Your task to perform on an android device: Turn off the flashlight Image 0: 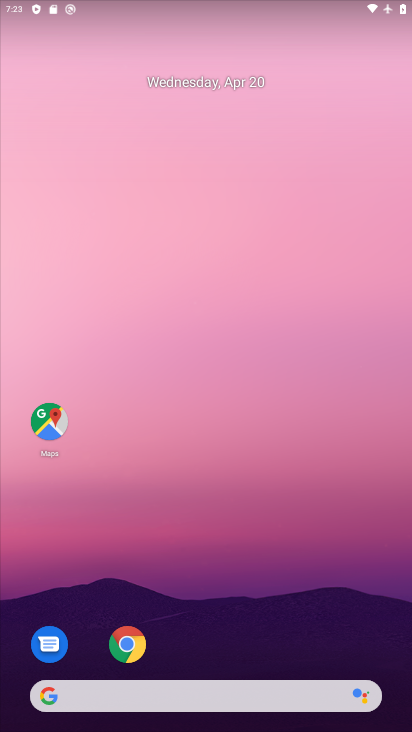
Step 0: drag from (300, 625) to (267, 58)
Your task to perform on an android device: Turn off the flashlight Image 1: 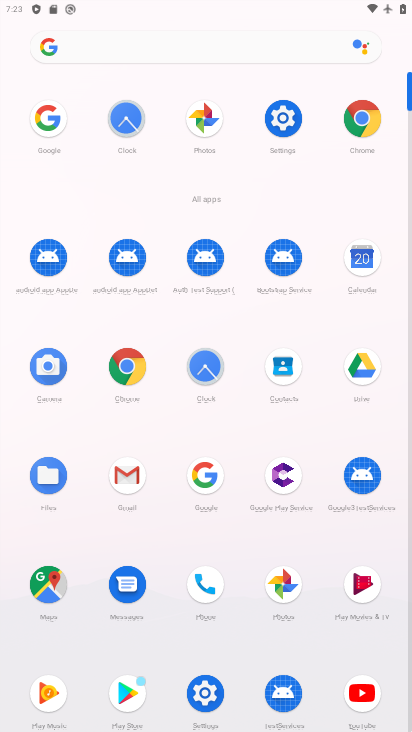
Step 1: click (273, 118)
Your task to perform on an android device: Turn off the flashlight Image 2: 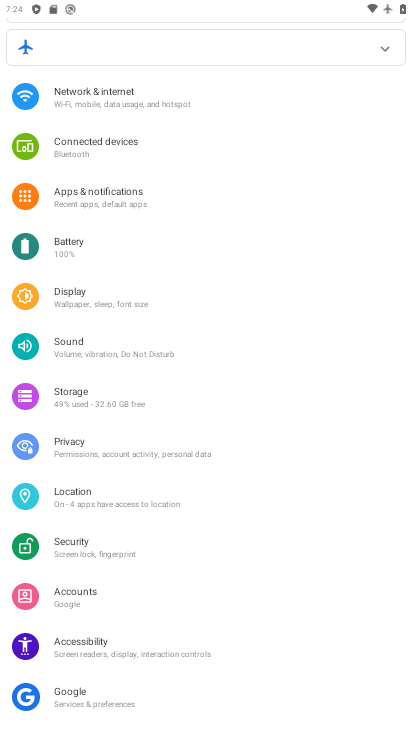
Step 2: task complete